Your task to perform on an android device: Open Google Maps Image 0: 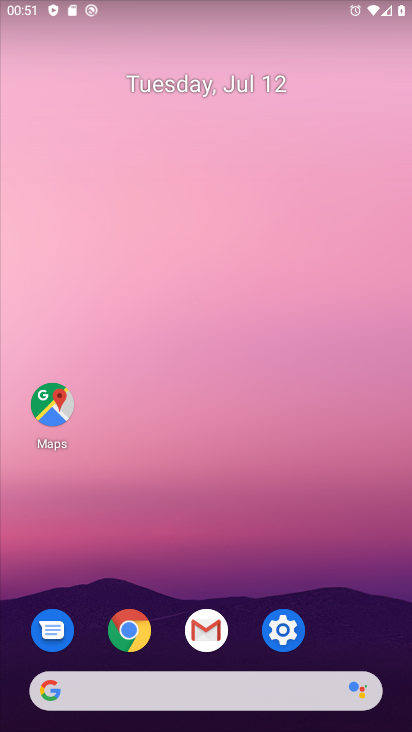
Step 0: click (57, 414)
Your task to perform on an android device: Open Google Maps Image 1: 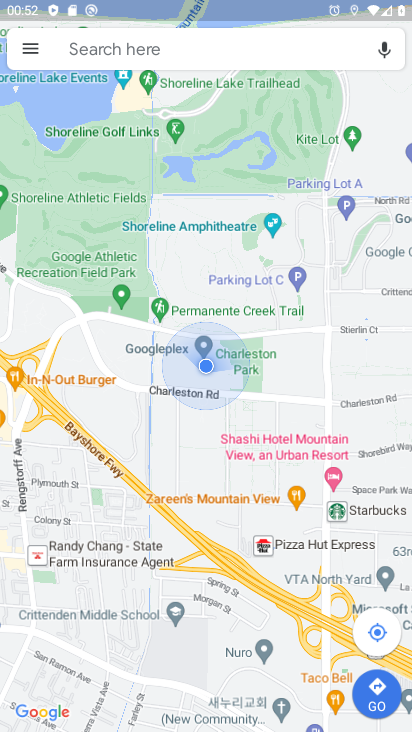
Step 1: task complete